Your task to perform on an android device: Open my contact list Image 0: 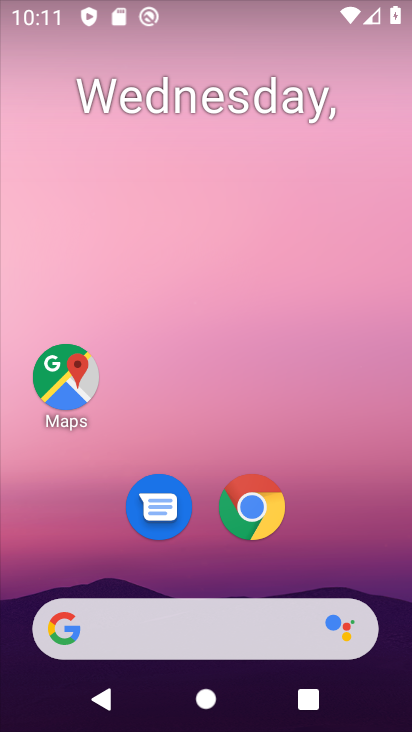
Step 0: drag from (336, 434) to (336, 353)
Your task to perform on an android device: Open my contact list Image 1: 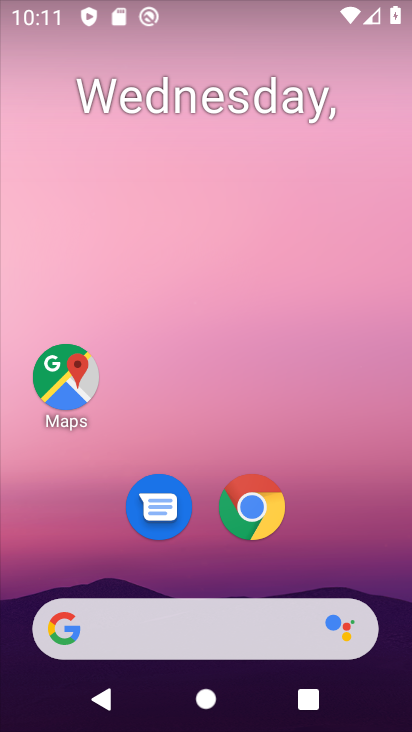
Step 1: click (333, 353)
Your task to perform on an android device: Open my contact list Image 2: 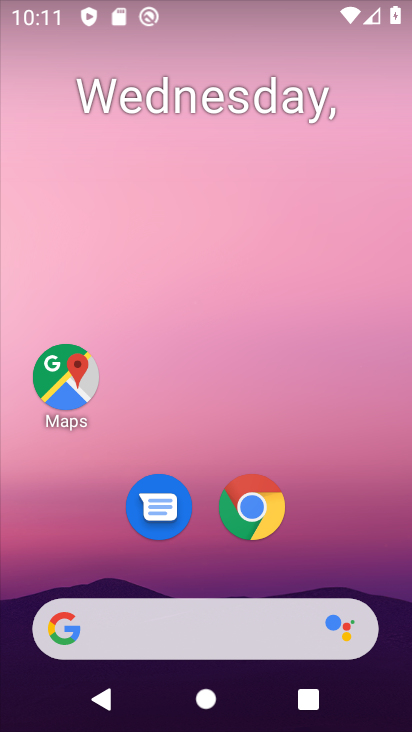
Step 2: drag from (263, 547) to (290, 135)
Your task to perform on an android device: Open my contact list Image 3: 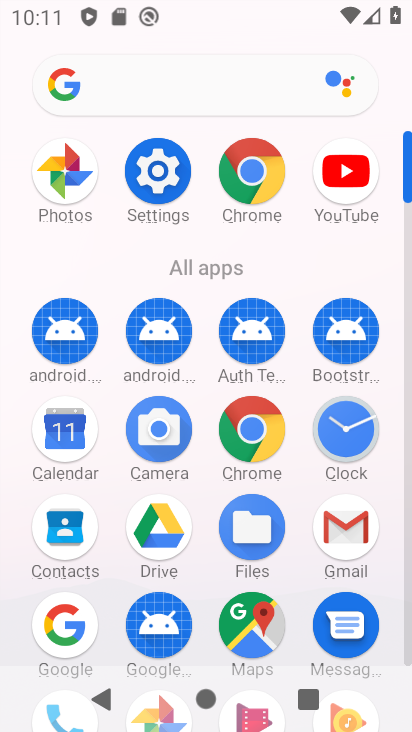
Step 3: drag from (170, 619) to (230, 300)
Your task to perform on an android device: Open my contact list Image 4: 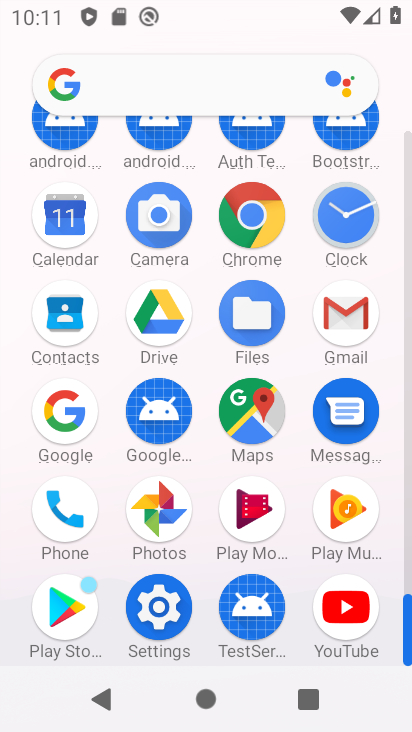
Step 4: click (66, 505)
Your task to perform on an android device: Open my contact list Image 5: 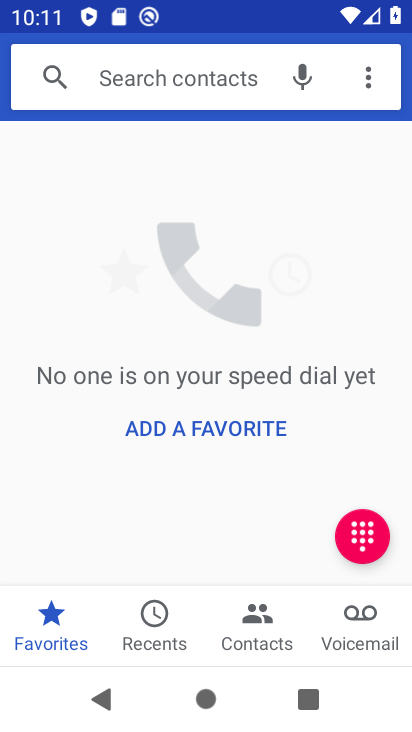
Step 5: click (267, 612)
Your task to perform on an android device: Open my contact list Image 6: 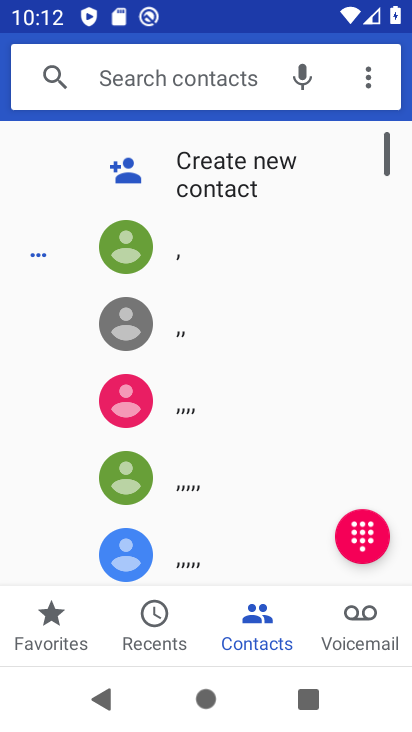
Step 6: task complete